Your task to perform on an android device: Search for the best gaming mouse on Best Buy. Image 0: 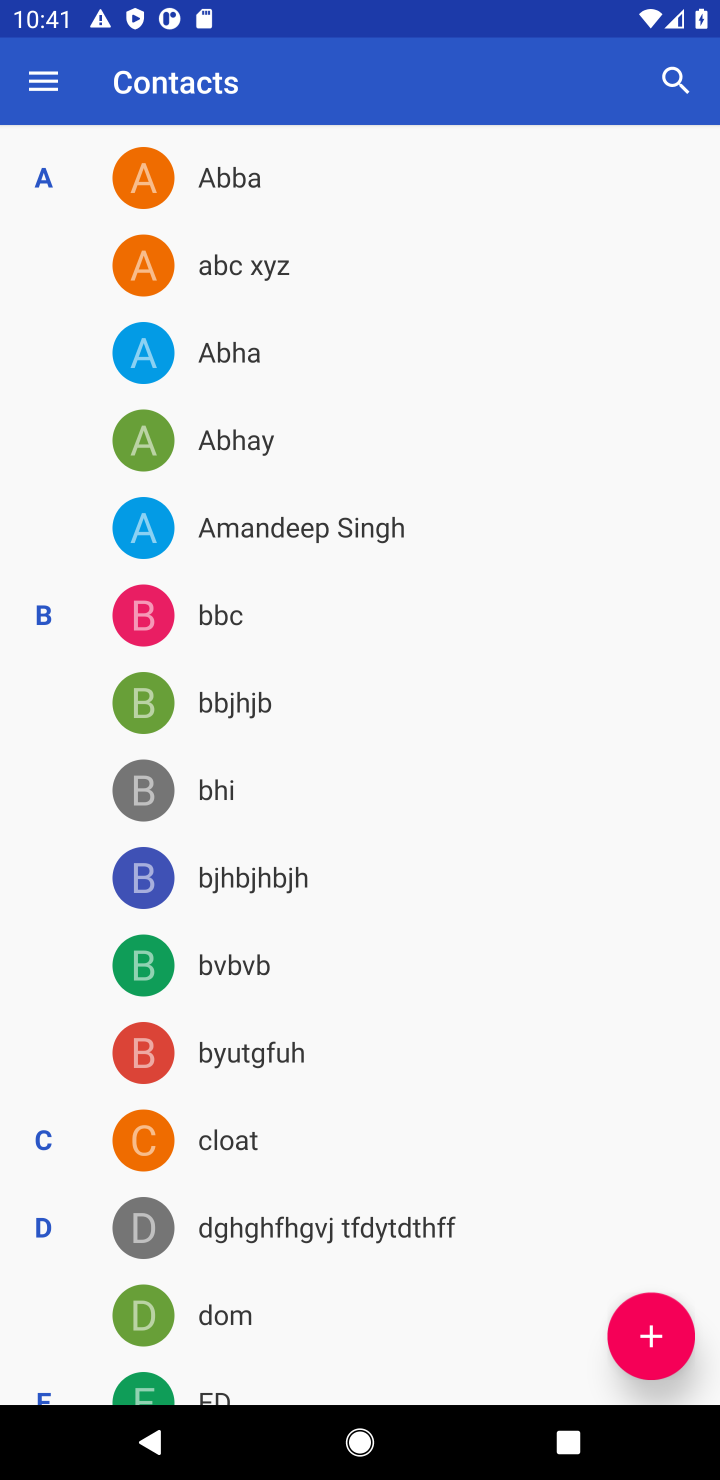
Step 0: press home button
Your task to perform on an android device: Search for the best gaming mouse on Best Buy. Image 1: 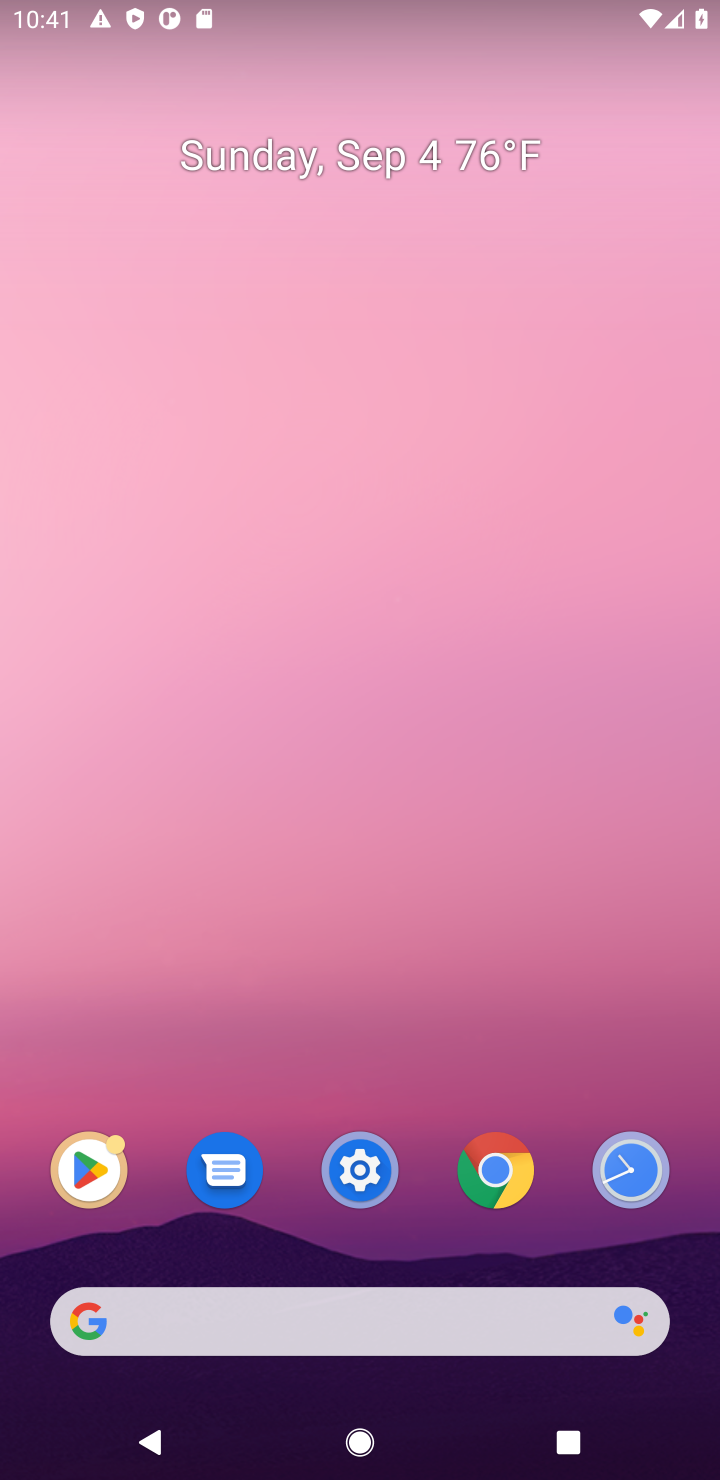
Step 1: click (455, 1326)
Your task to perform on an android device: Search for the best gaming mouse on Best Buy. Image 2: 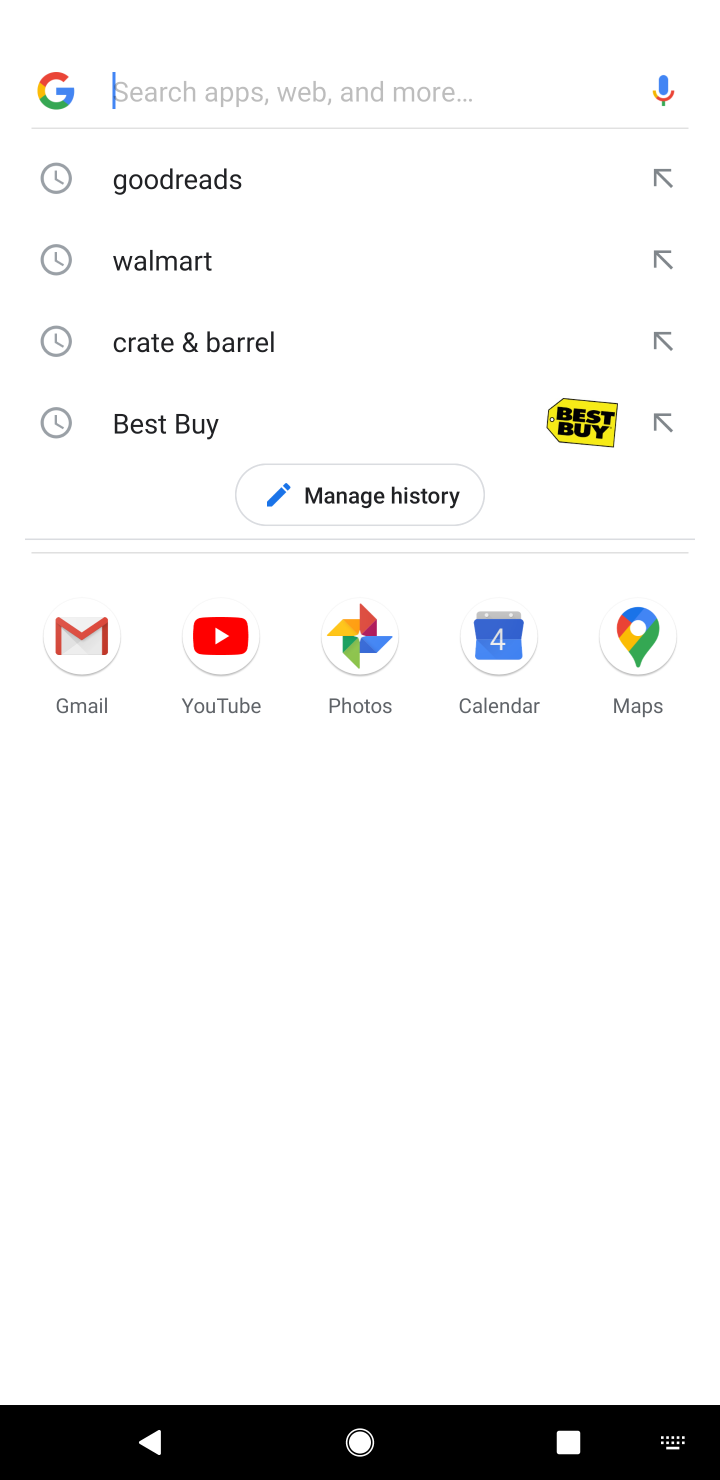
Step 2: type "Best Buy"
Your task to perform on an android device: Search for the best gaming mouse on Best Buy. Image 3: 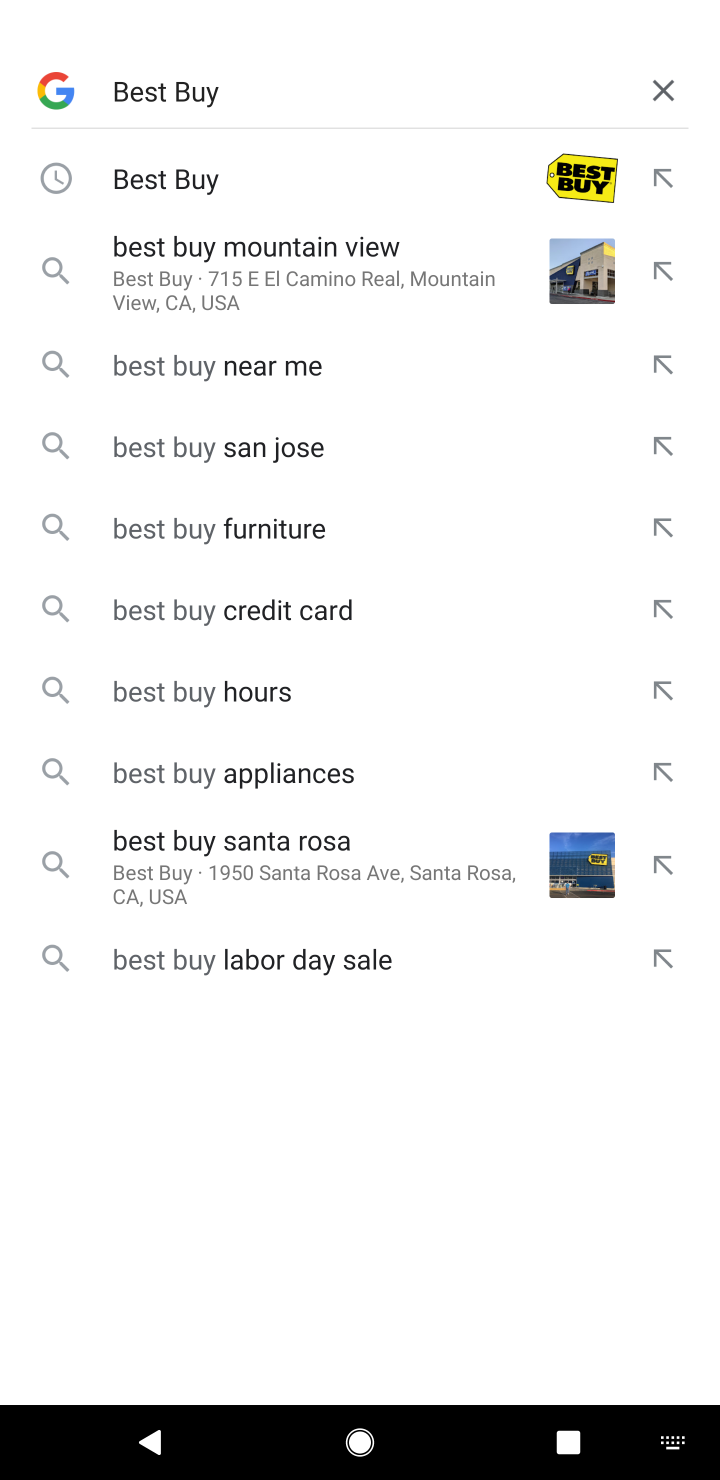
Step 3: type ""
Your task to perform on an android device: Search for the best gaming mouse on Best Buy. Image 4: 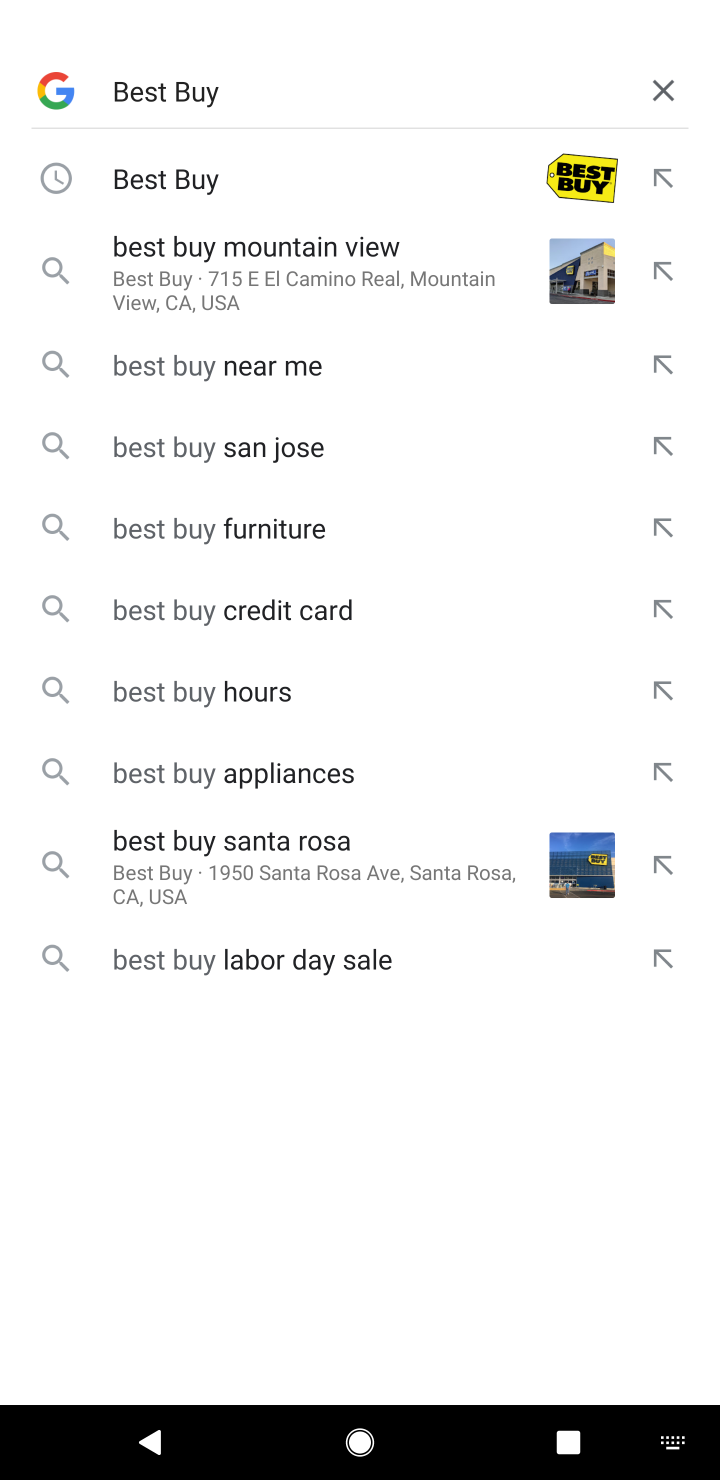
Step 4: click (177, 184)
Your task to perform on an android device: Search for the best gaming mouse on Best Buy. Image 5: 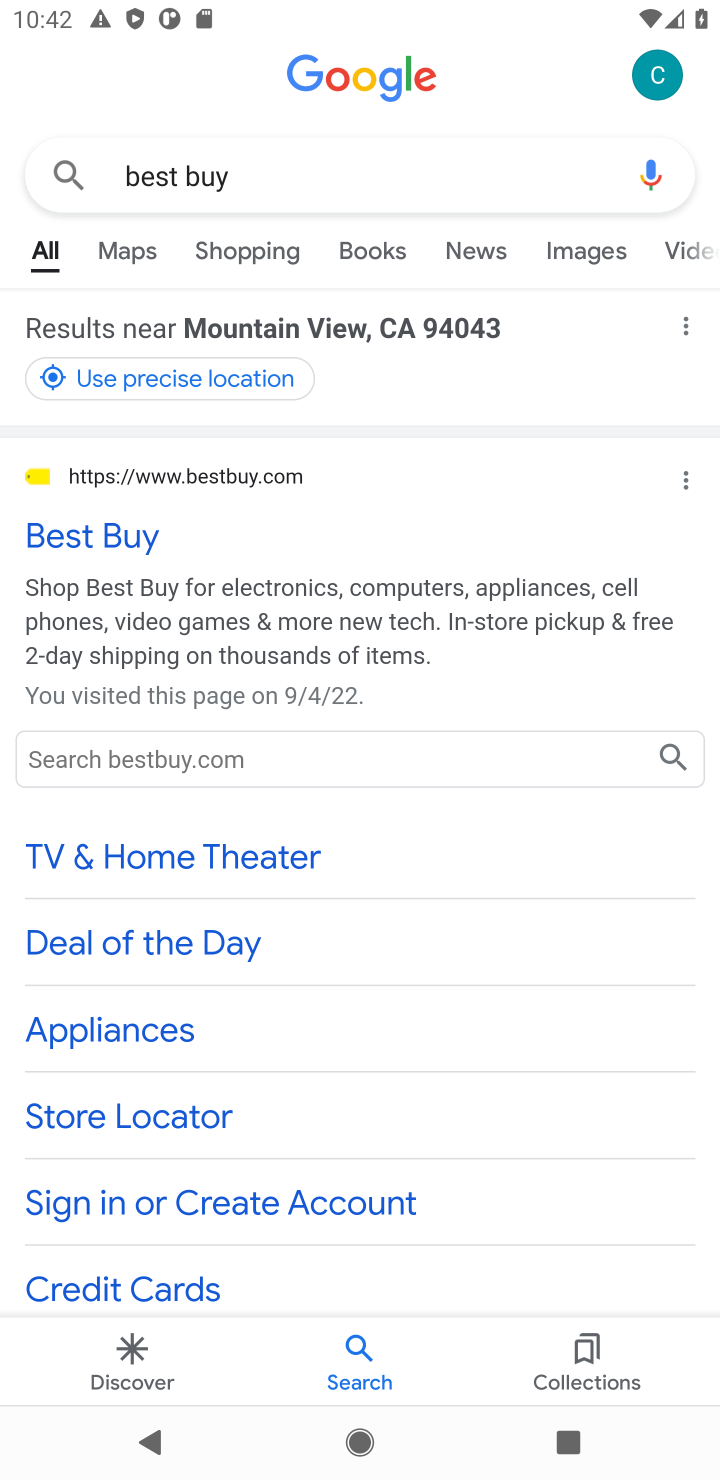
Step 5: click (85, 539)
Your task to perform on an android device: Search for the best gaming mouse on Best Buy. Image 6: 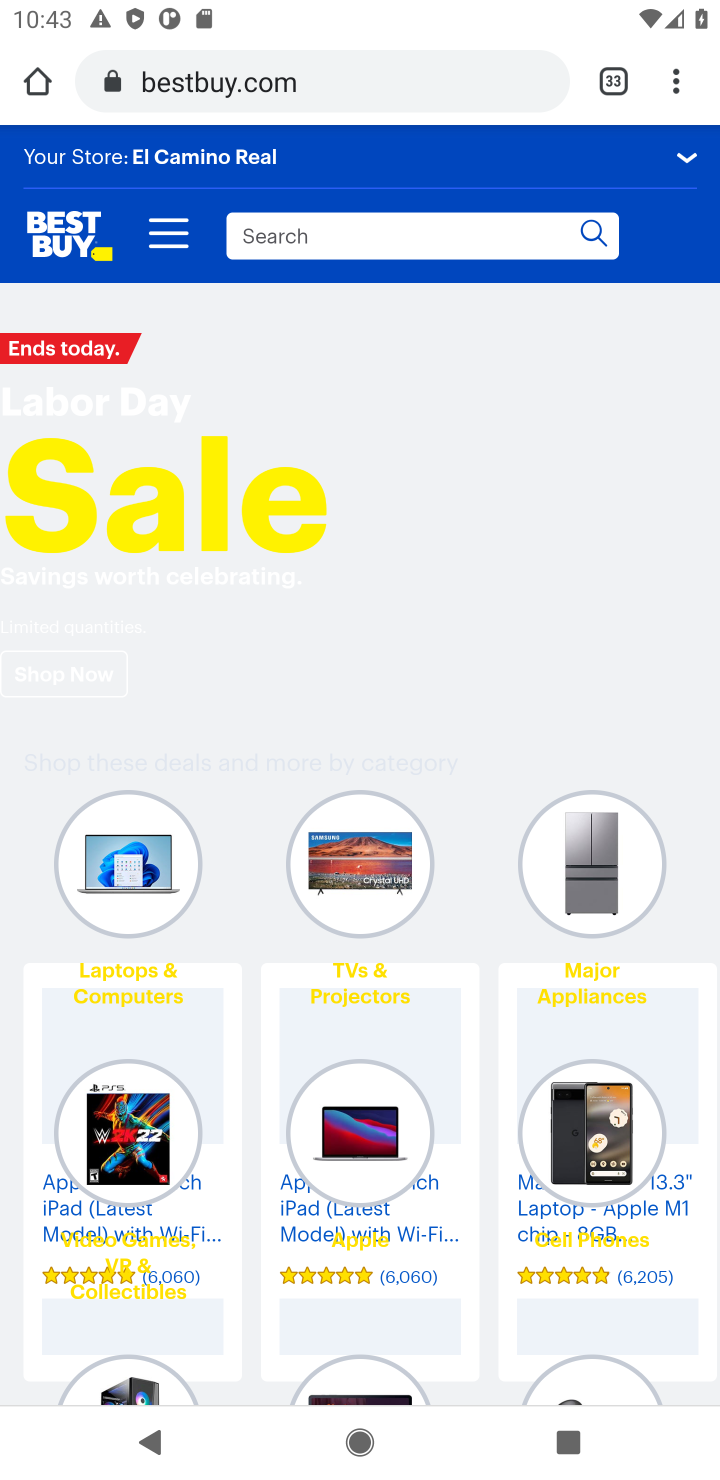
Step 6: click (322, 240)
Your task to perform on an android device: Search for the best gaming mouse on Best Buy. Image 7: 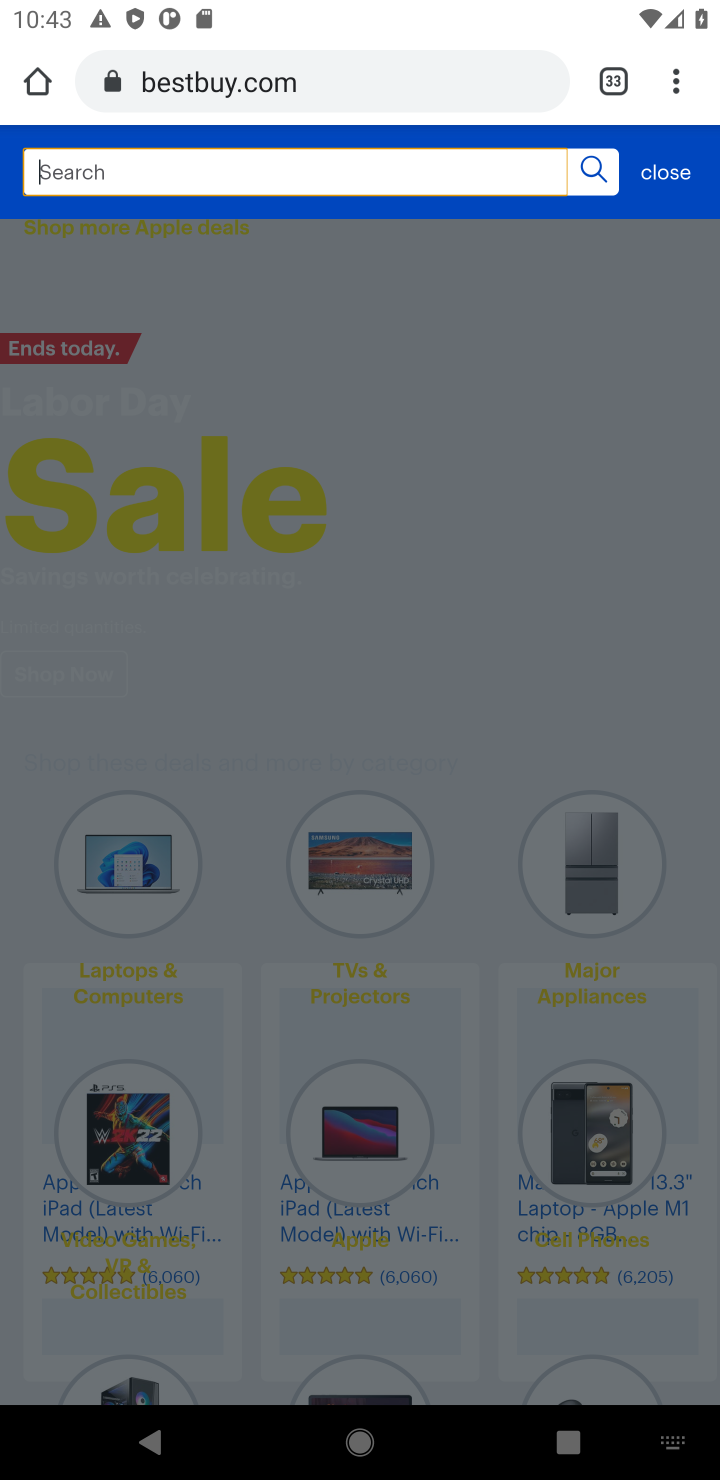
Step 7: type "gaming mouse"
Your task to perform on an android device: Search for the best gaming mouse on Best Buy. Image 8: 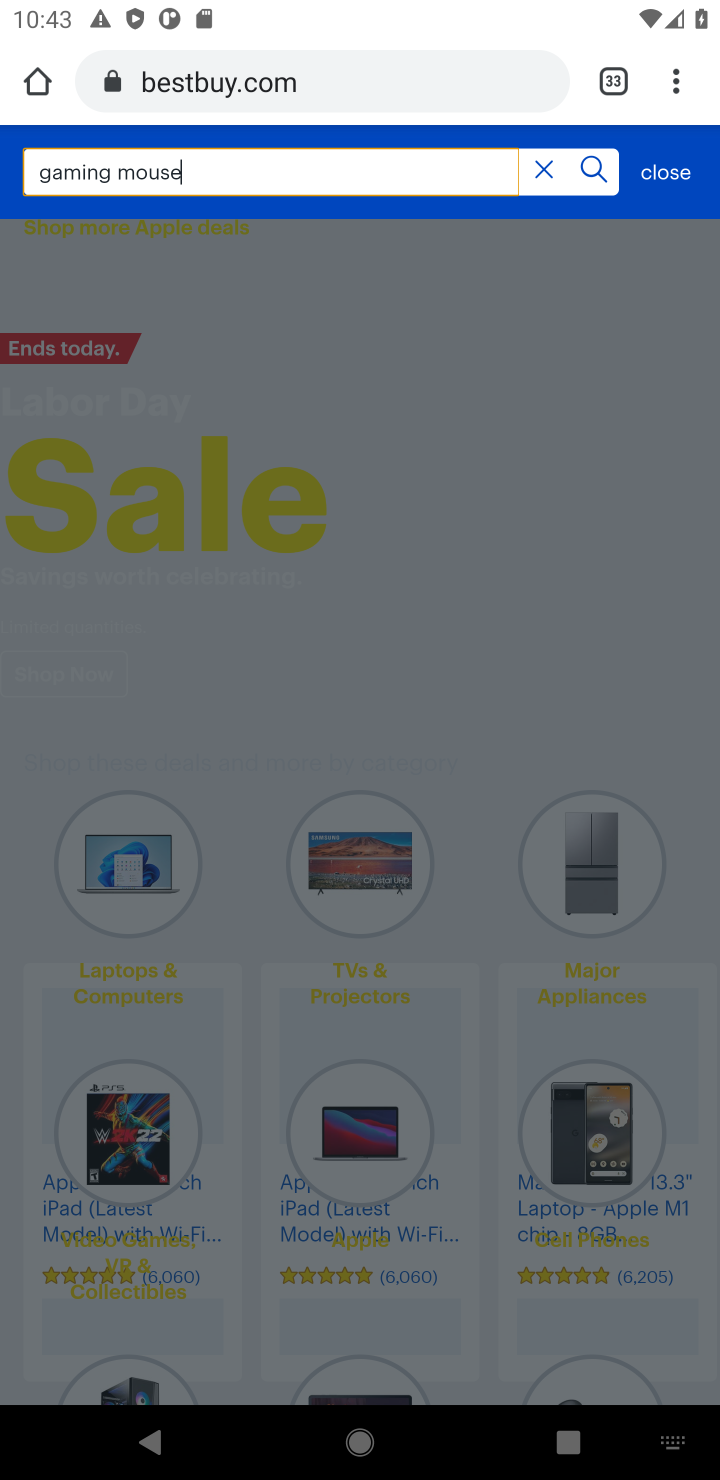
Step 8: type ""
Your task to perform on an android device: Search for the best gaming mouse on Best Buy. Image 9: 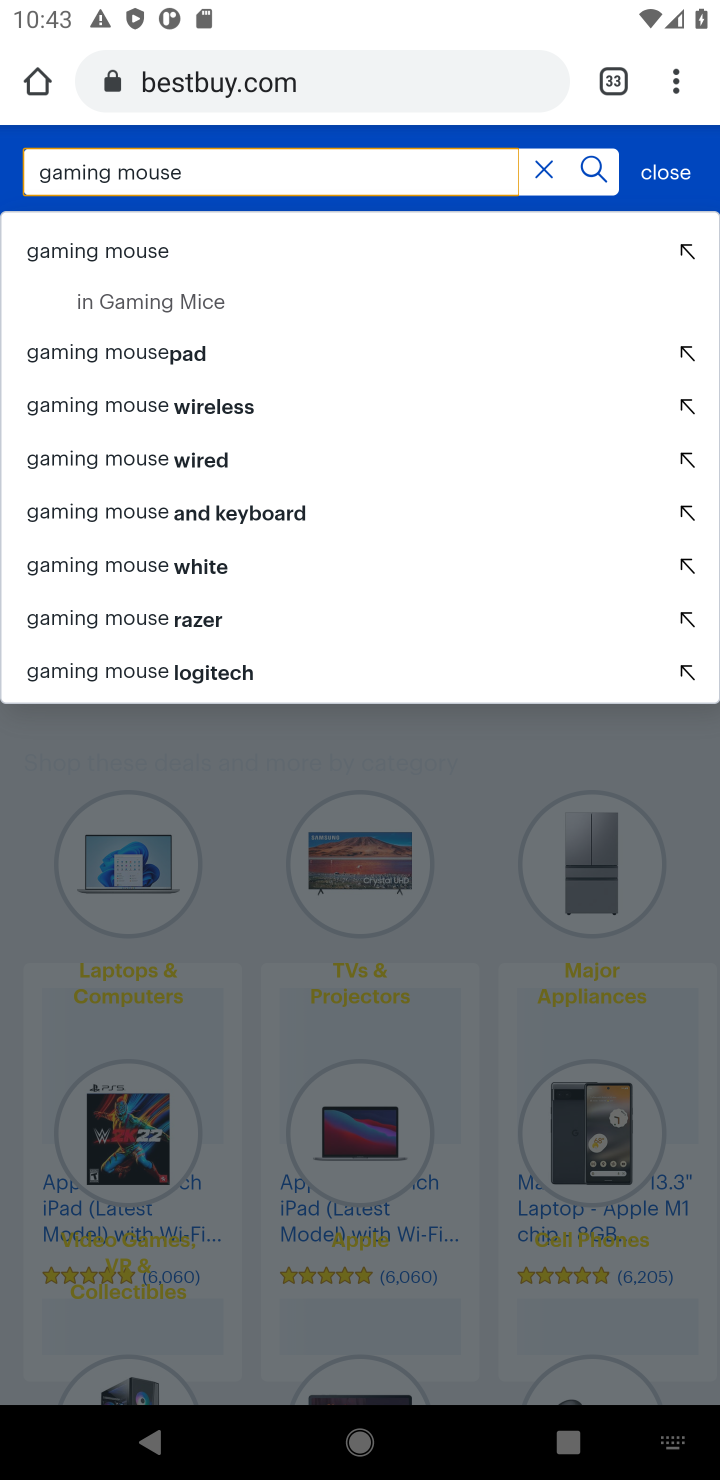
Step 9: click (236, 260)
Your task to perform on an android device: Search for the best gaming mouse on Best Buy. Image 10: 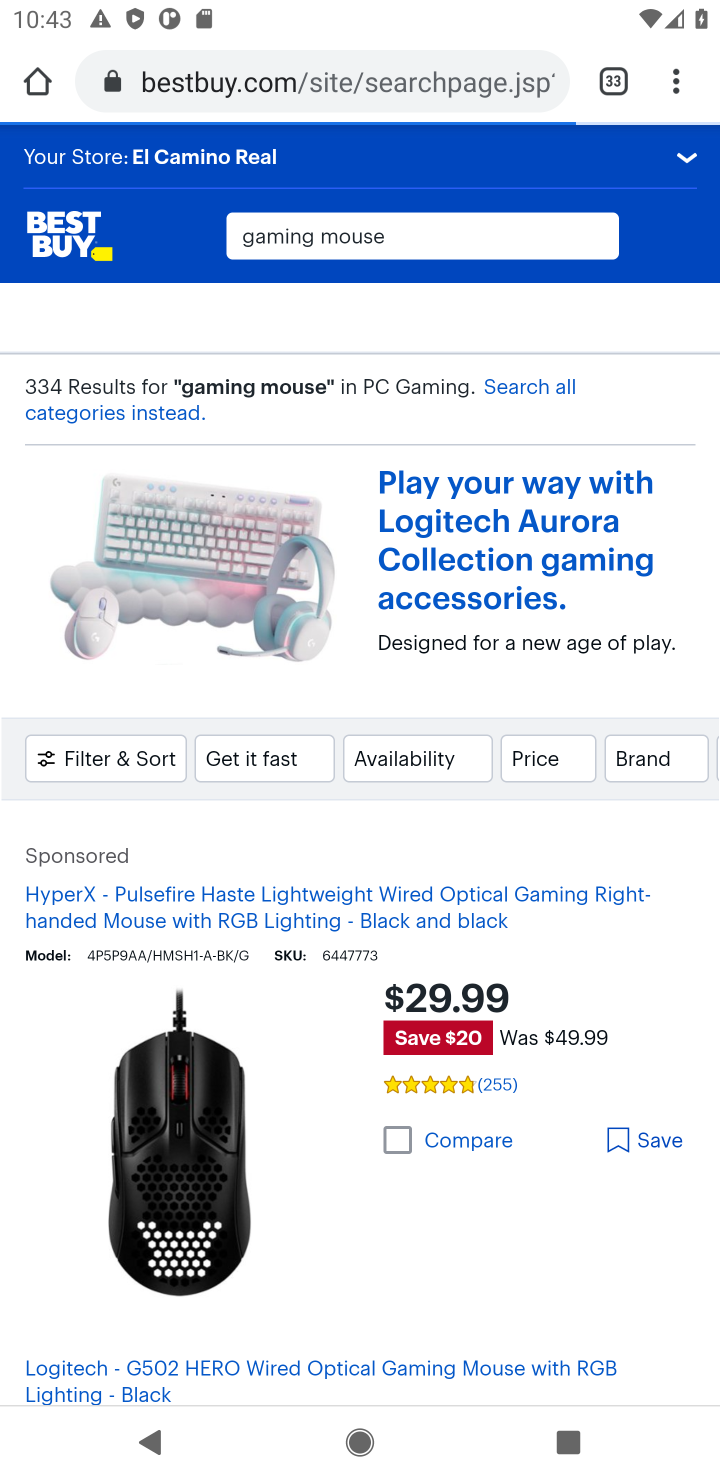
Step 10: task complete